Your task to perform on an android device: Show me the alarms in the clock app Image 0: 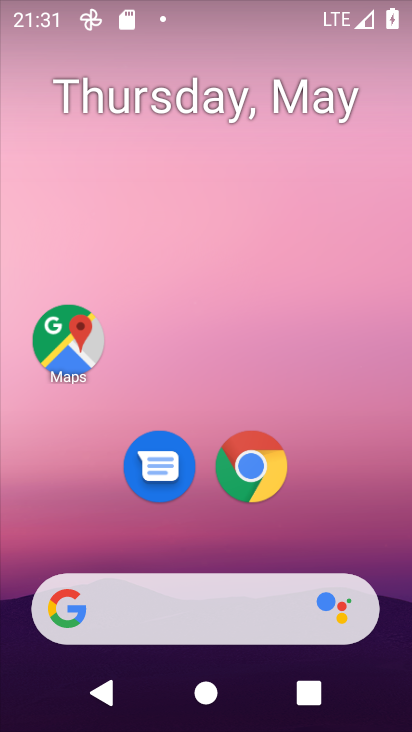
Step 0: drag from (355, 538) to (357, 94)
Your task to perform on an android device: Show me the alarms in the clock app Image 1: 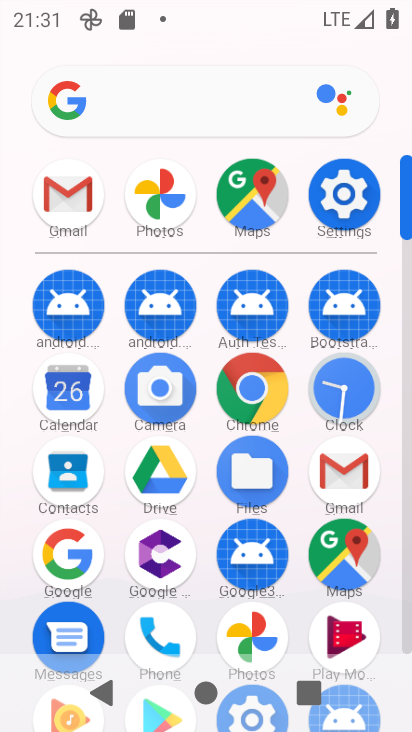
Step 1: click (337, 389)
Your task to perform on an android device: Show me the alarms in the clock app Image 2: 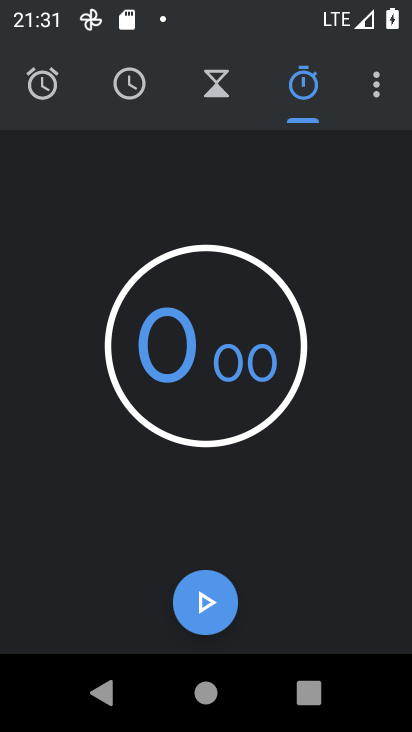
Step 2: click (386, 93)
Your task to perform on an android device: Show me the alarms in the clock app Image 3: 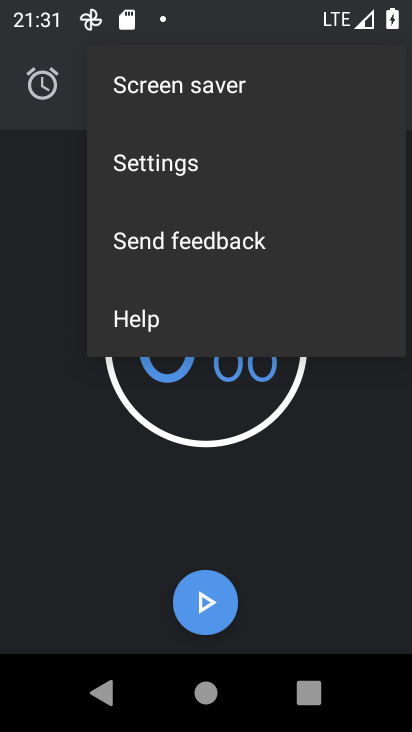
Step 3: click (270, 157)
Your task to perform on an android device: Show me the alarms in the clock app Image 4: 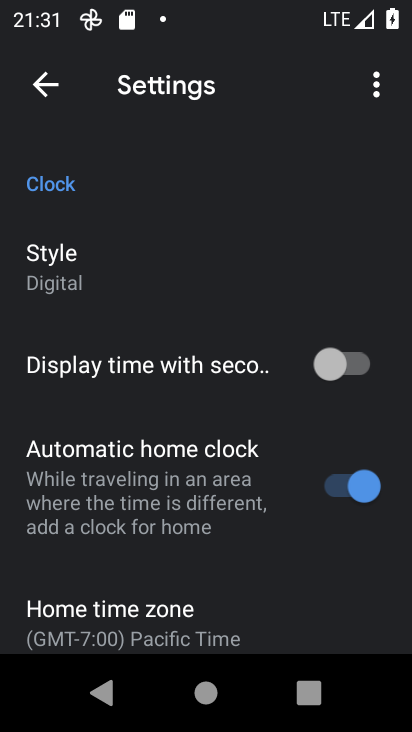
Step 4: task complete